Your task to perform on an android device: Is it going to rain this weekend? Image 0: 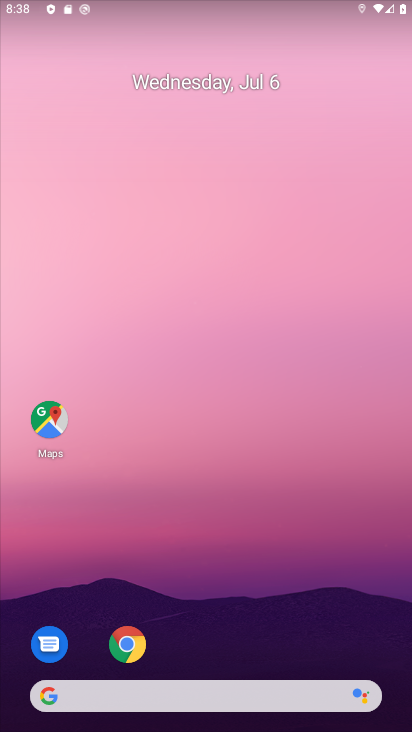
Step 0: drag from (178, 658) to (195, 143)
Your task to perform on an android device: Is it going to rain this weekend? Image 1: 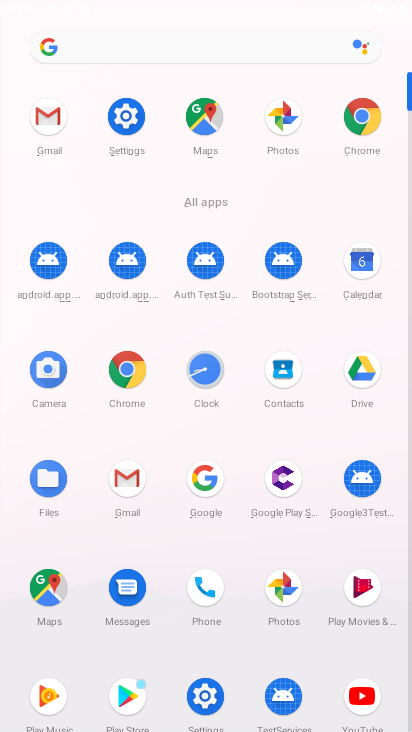
Step 1: click (215, 479)
Your task to perform on an android device: Is it going to rain this weekend? Image 2: 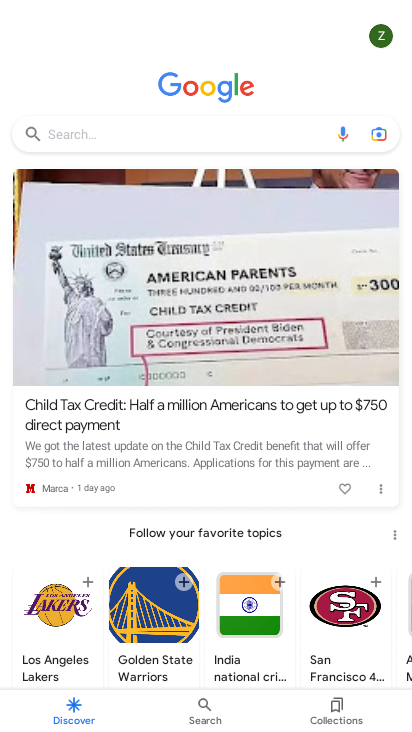
Step 2: click (120, 118)
Your task to perform on an android device: Is it going to rain this weekend? Image 3: 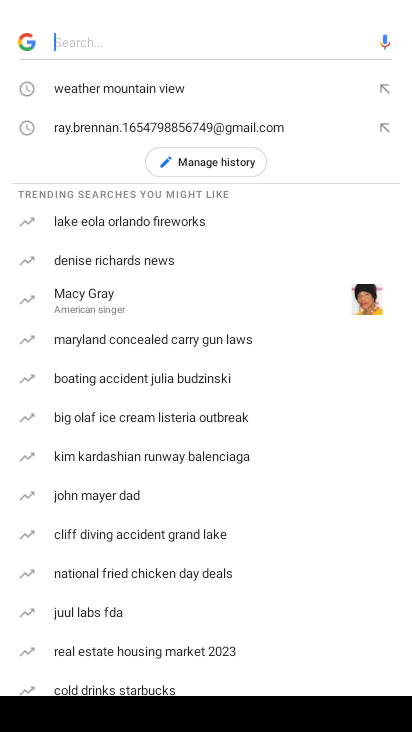
Step 3: click (102, 96)
Your task to perform on an android device: Is it going to rain this weekend? Image 4: 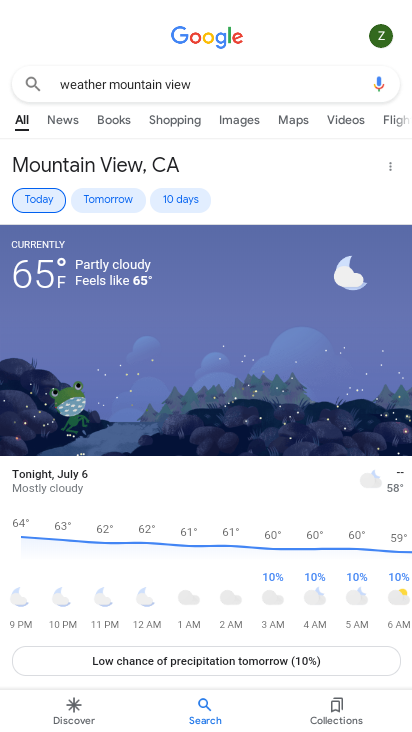
Step 4: drag from (355, 584) to (118, 612)
Your task to perform on an android device: Is it going to rain this weekend? Image 5: 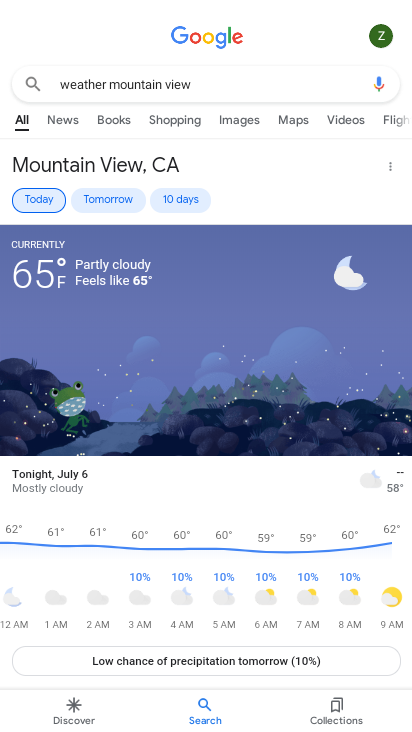
Step 5: click (160, 196)
Your task to perform on an android device: Is it going to rain this weekend? Image 6: 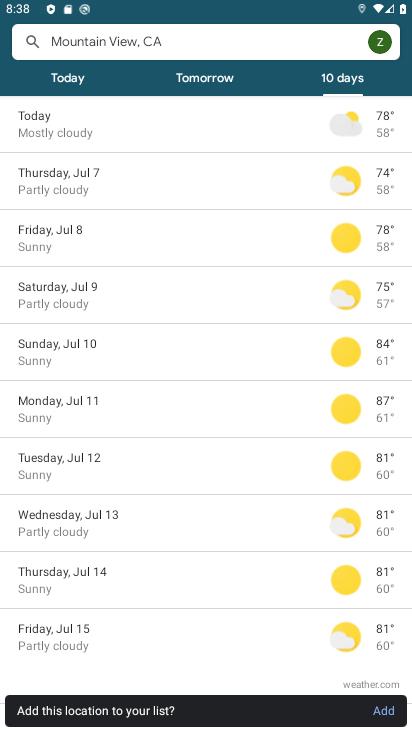
Step 6: task complete